Your task to perform on an android device: turn off improve location accuracy Image 0: 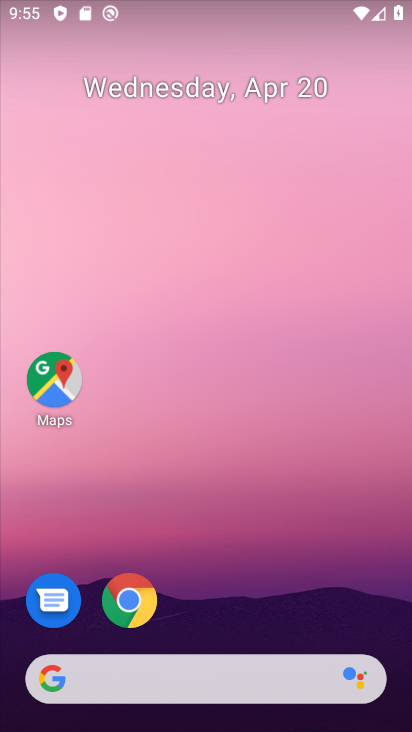
Step 0: drag from (253, 600) to (285, 193)
Your task to perform on an android device: turn off improve location accuracy Image 1: 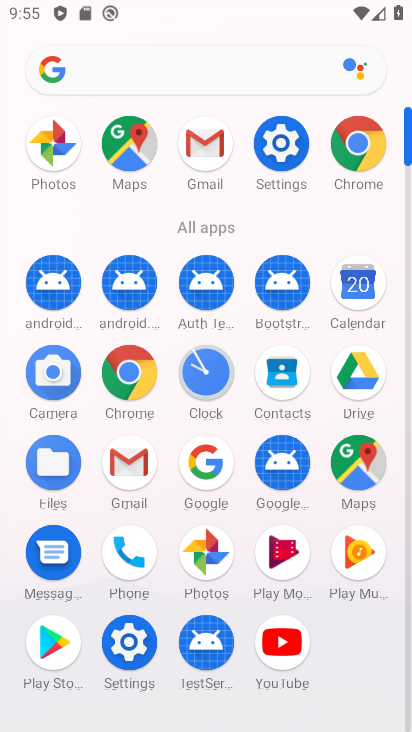
Step 1: click (267, 143)
Your task to perform on an android device: turn off improve location accuracy Image 2: 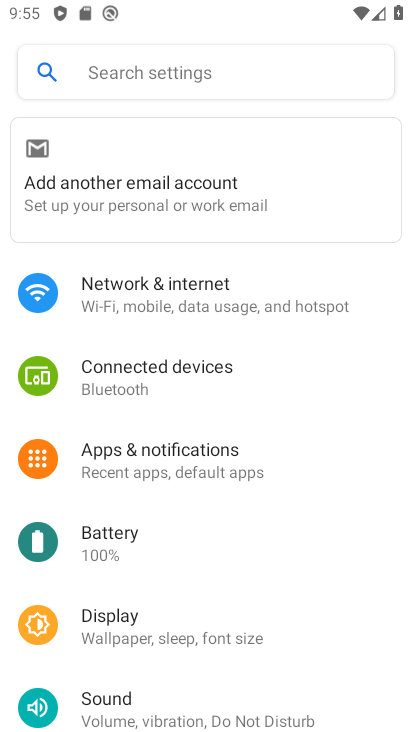
Step 2: drag from (240, 562) to (272, 230)
Your task to perform on an android device: turn off improve location accuracy Image 3: 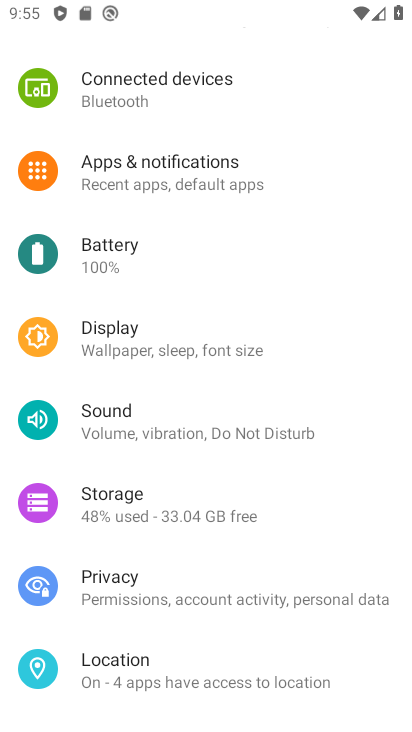
Step 3: click (175, 680)
Your task to perform on an android device: turn off improve location accuracy Image 4: 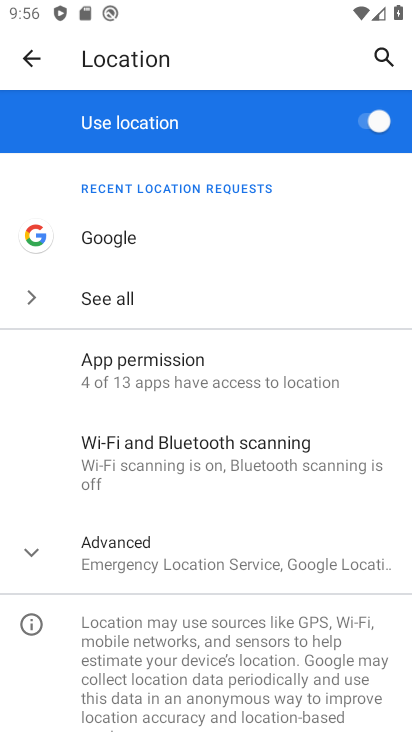
Step 4: click (212, 554)
Your task to perform on an android device: turn off improve location accuracy Image 5: 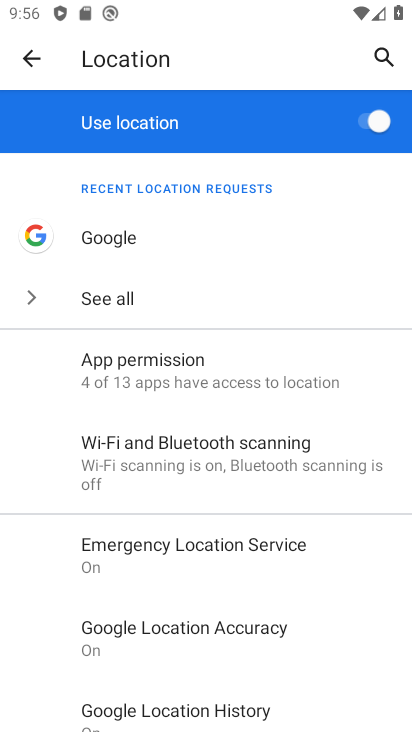
Step 5: drag from (208, 634) to (238, 428)
Your task to perform on an android device: turn off improve location accuracy Image 6: 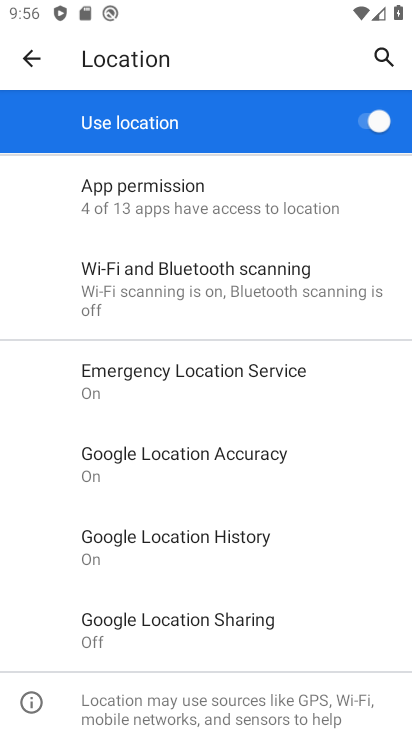
Step 6: click (220, 463)
Your task to perform on an android device: turn off improve location accuracy Image 7: 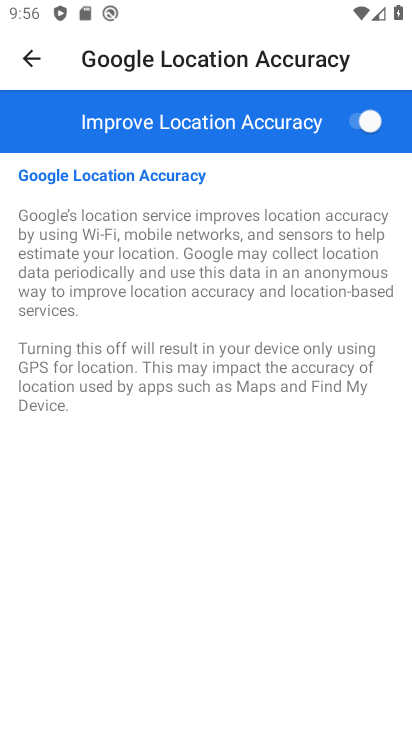
Step 7: click (351, 118)
Your task to perform on an android device: turn off improve location accuracy Image 8: 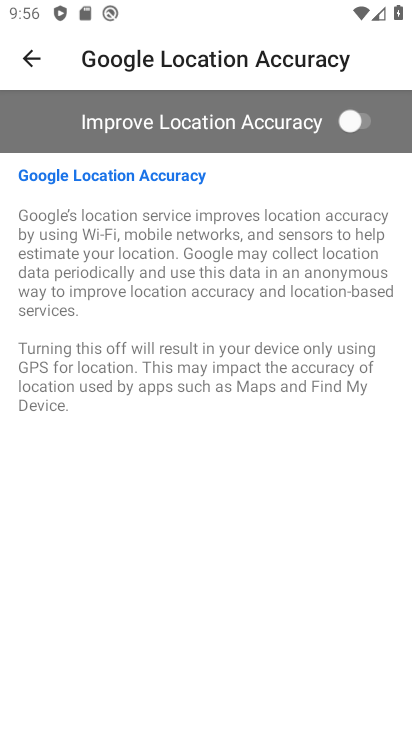
Step 8: task complete